Your task to perform on an android device: turn notification dots off Image 0: 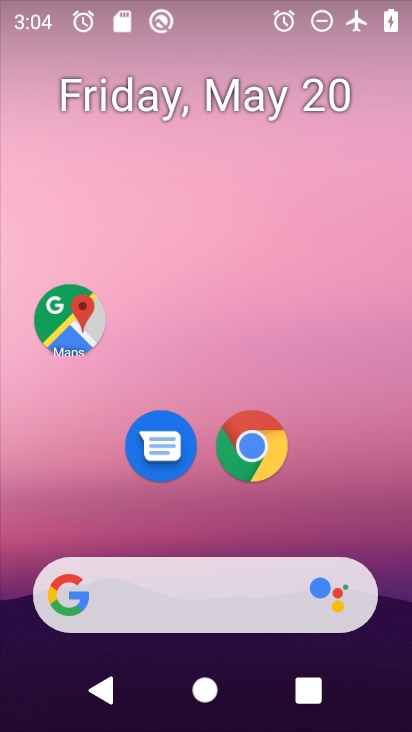
Step 0: drag from (359, 525) to (370, 21)
Your task to perform on an android device: turn notification dots off Image 1: 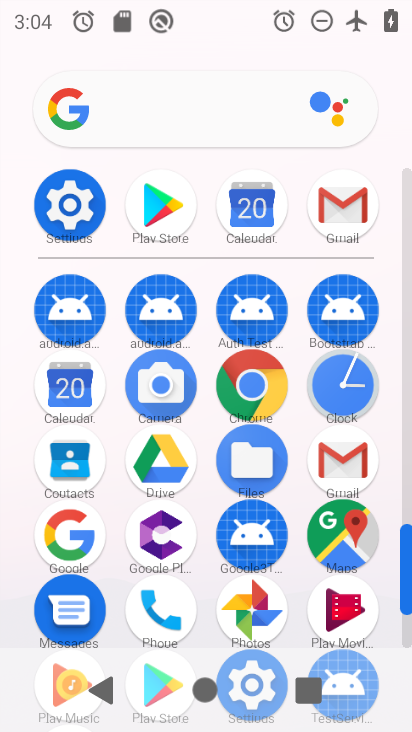
Step 1: click (74, 206)
Your task to perform on an android device: turn notification dots off Image 2: 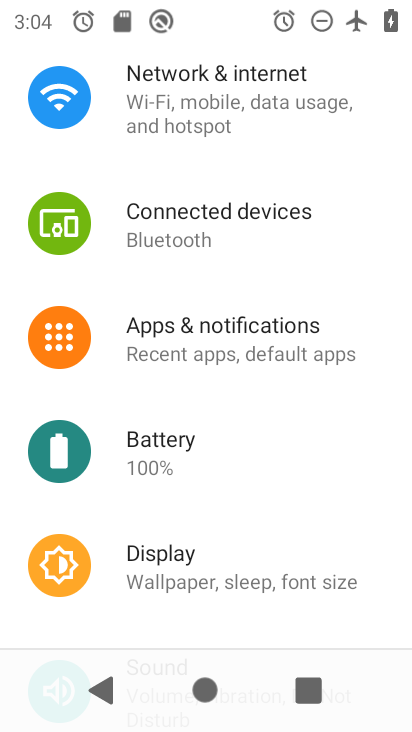
Step 2: click (251, 346)
Your task to perform on an android device: turn notification dots off Image 3: 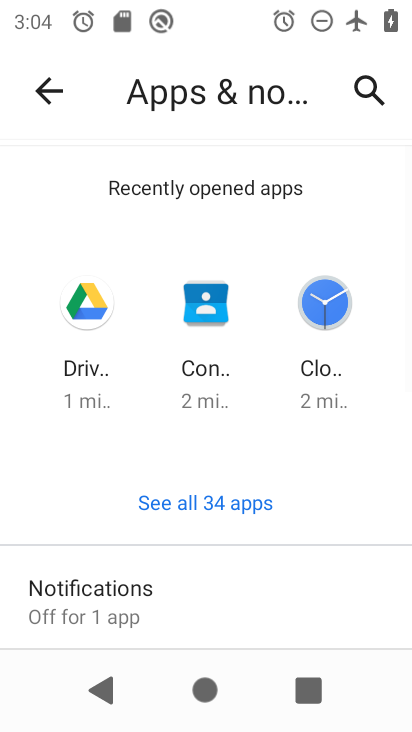
Step 3: drag from (243, 426) to (216, 27)
Your task to perform on an android device: turn notification dots off Image 4: 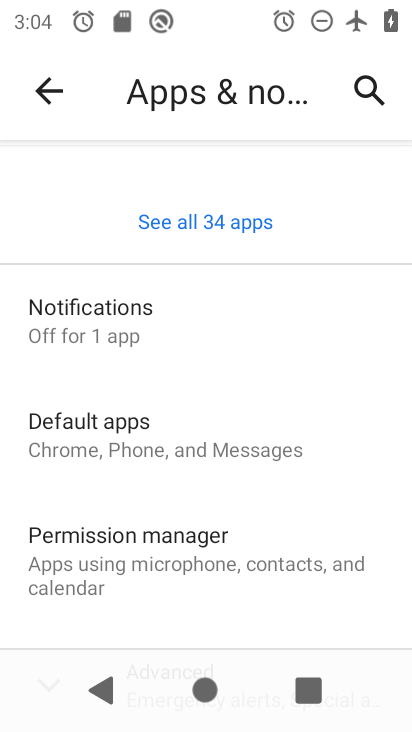
Step 4: click (71, 336)
Your task to perform on an android device: turn notification dots off Image 5: 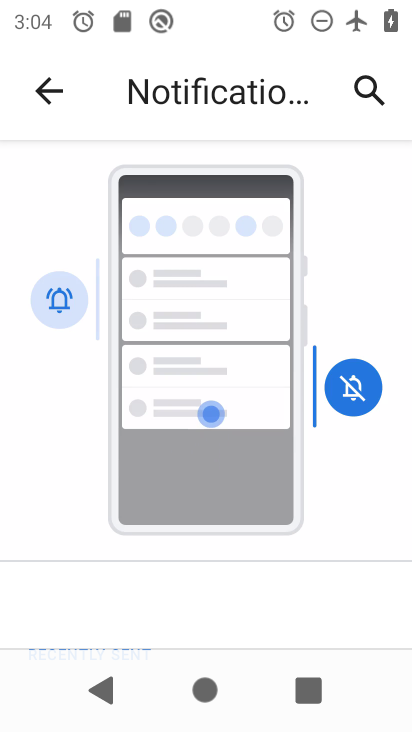
Step 5: drag from (254, 552) to (231, 25)
Your task to perform on an android device: turn notification dots off Image 6: 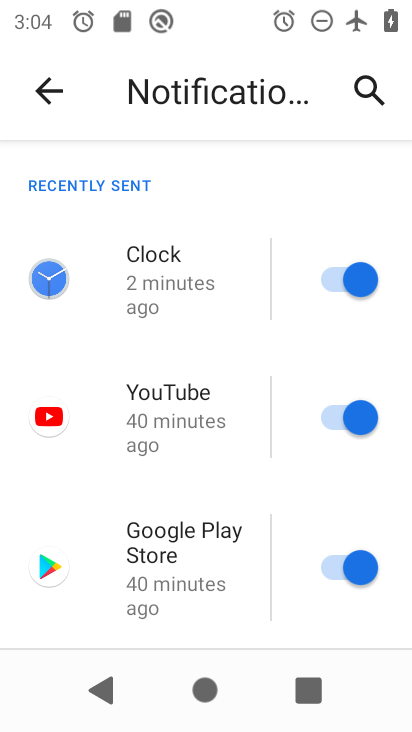
Step 6: drag from (201, 531) to (181, 66)
Your task to perform on an android device: turn notification dots off Image 7: 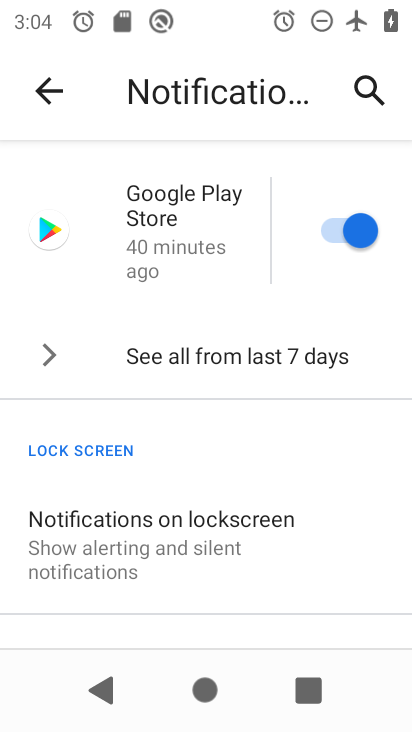
Step 7: drag from (151, 577) to (157, 141)
Your task to perform on an android device: turn notification dots off Image 8: 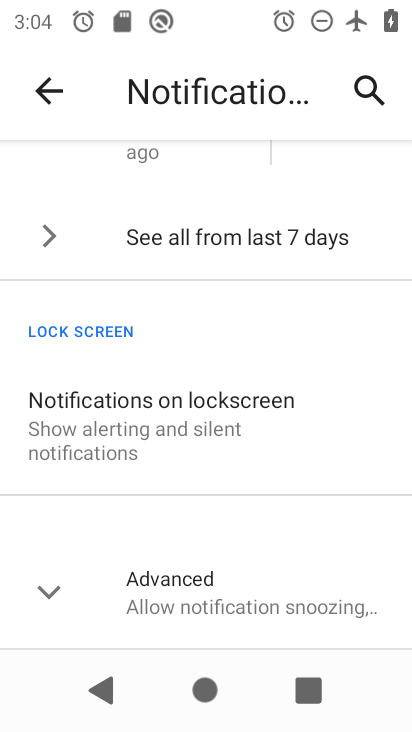
Step 8: click (47, 597)
Your task to perform on an android device: turn notification dots off Image 9: 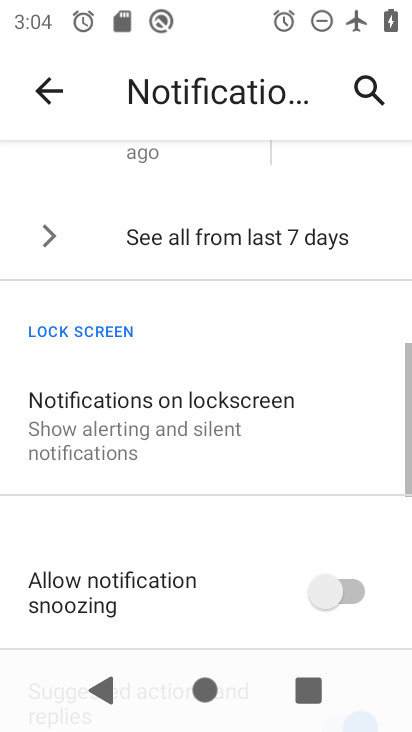
Step 9: drag from (206, 581) to (210, 133)
Your task to perform on an android device: turn notification dots off Image 10: 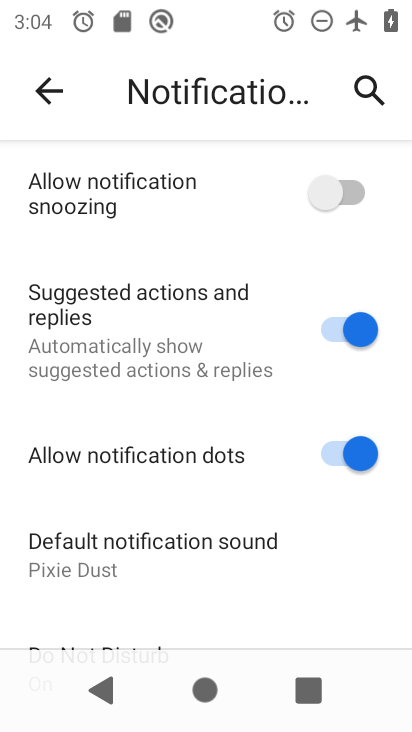
Step 10: drag from (173, 536) to (195, 382)
Your task to perform on an android device: turn notification dots off Image 11: 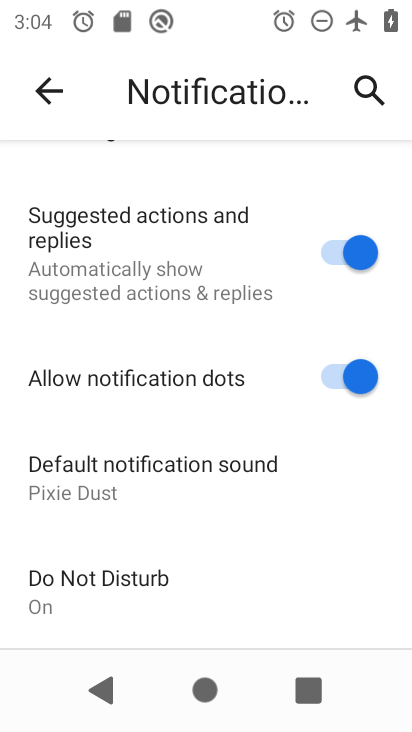
Step 11: click (352, 387)
Your task to perform on an android device: turn notification dots off Image 12: 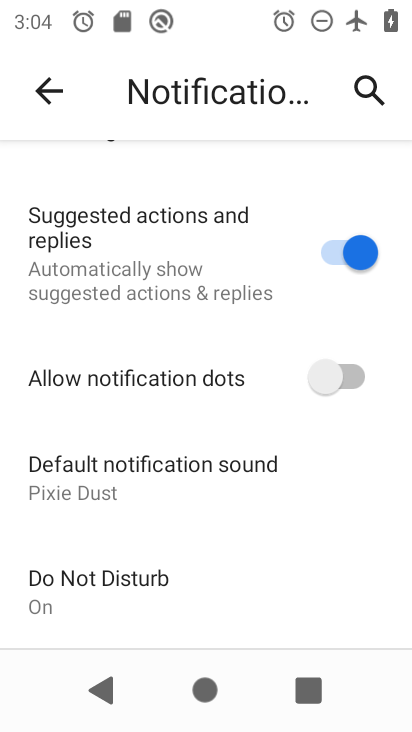
Step 12: task complete